Your task to perform on an android device: toggle sleep mode Image 0: 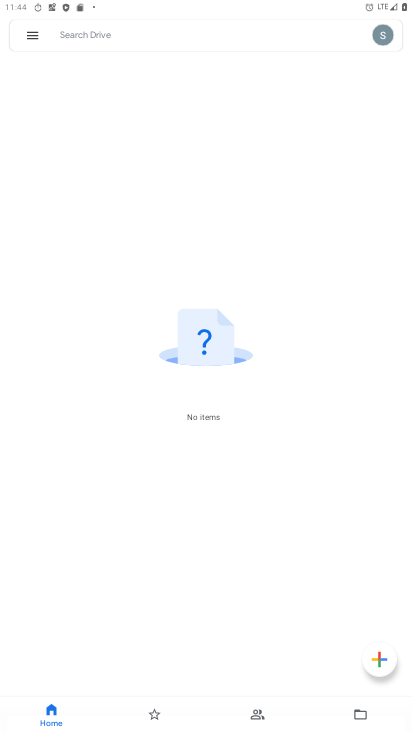
Step 0: press home button
Your task to perform on an android device: toggle sleep mode Image 1: 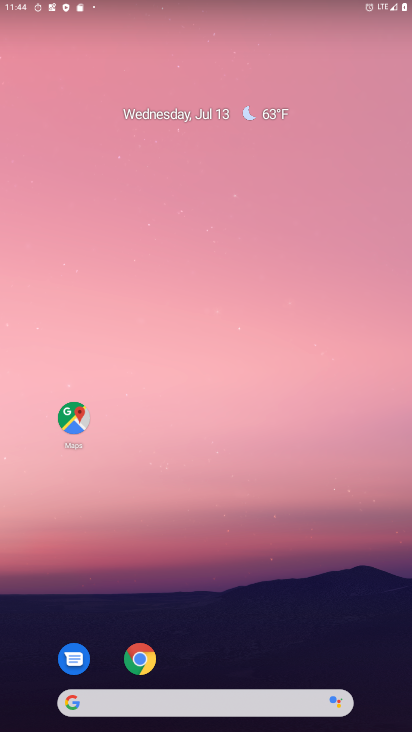
Step 1: drag from (307, 574) to (267, 112)
Your task to perform on an android device: toggle sleep mode Image 2: 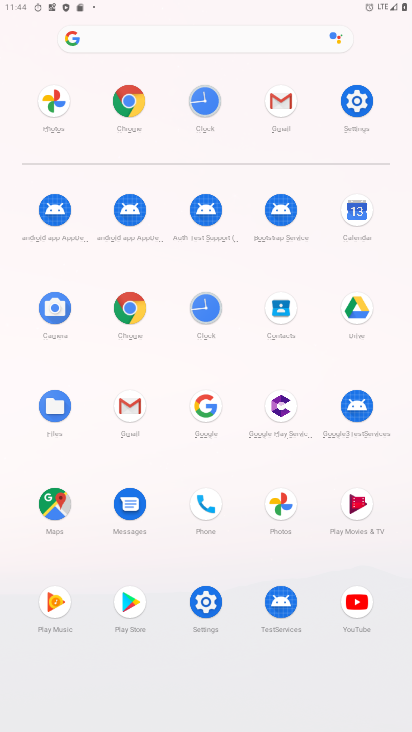
Step 2: click (356, 98)
Your task to perform on an android device: toggle sleep mode Image 3: 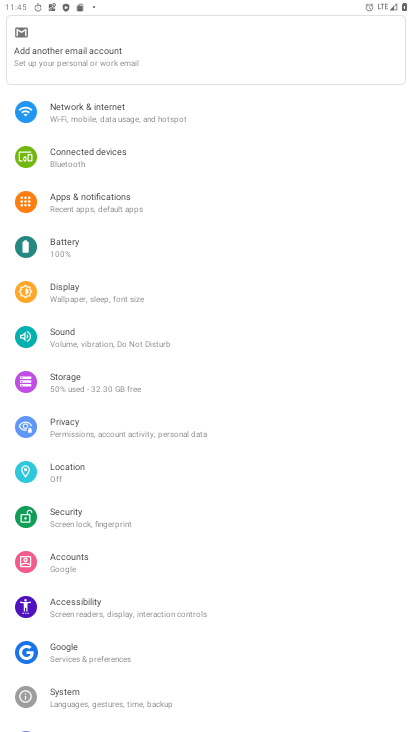
Step 3: click (98, 291)
Your task to perform on an android device: toggle sleep mode Image 4: 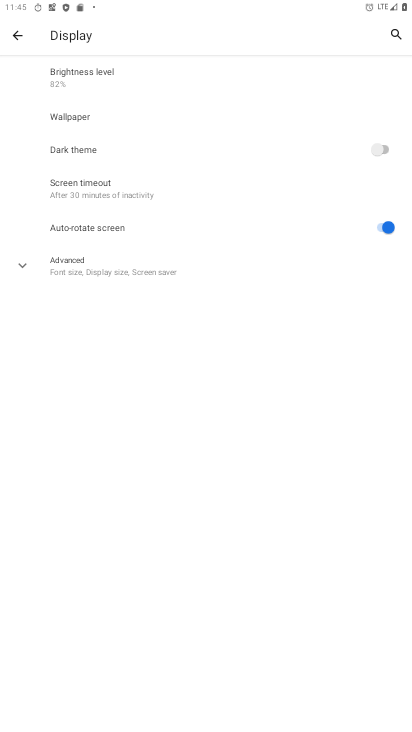
Step 4: click (126, 193)
Your task to perform on an android device: toggle sleep mode Image 5: 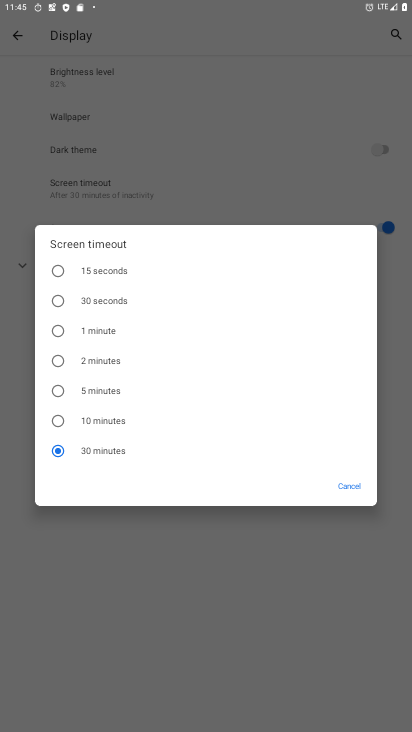
Step 5: click (83, 419)
Your task to perform on an android device: toggle sleep mode Image 6: 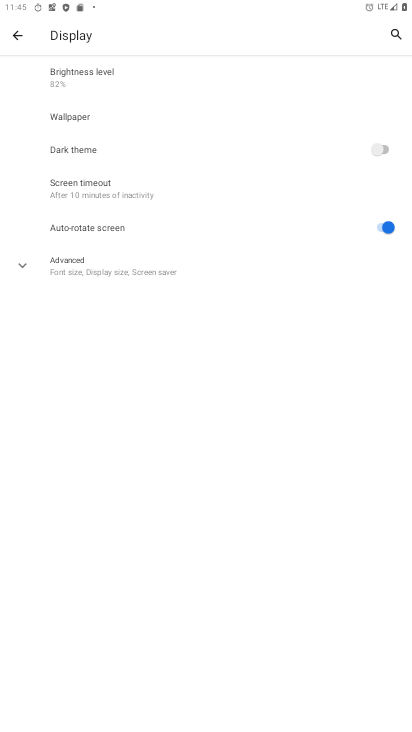
Step 6: task complete